Your task to perform on an android device: Go to eBay Image 0: 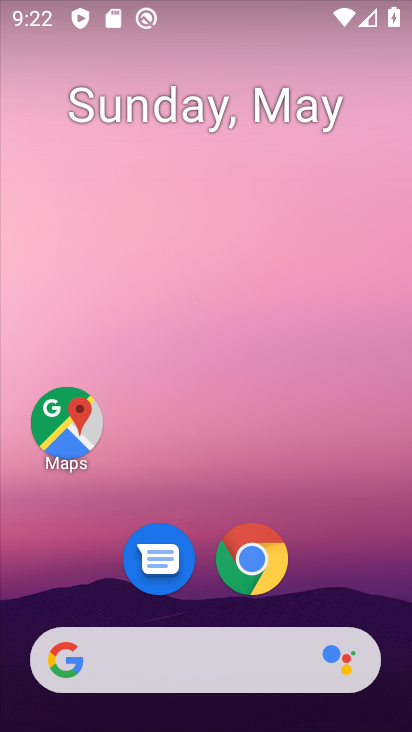
Step 0: press home button
Your task to perform on an android device: Go to eBay Image 1: 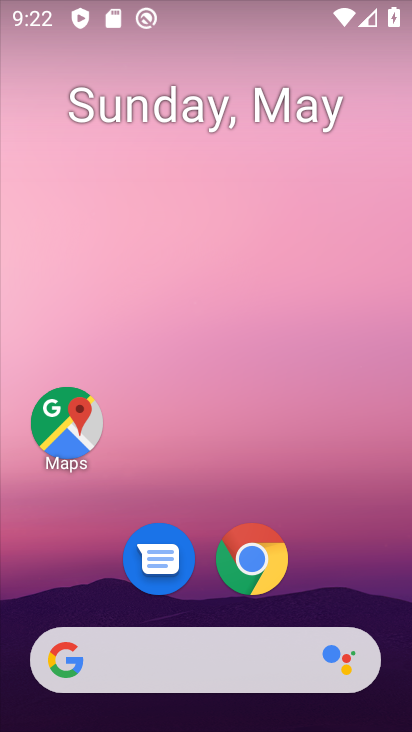
Step 1: click (62, 670)
Your task to perform on an android device: Go to eBay Image 2: 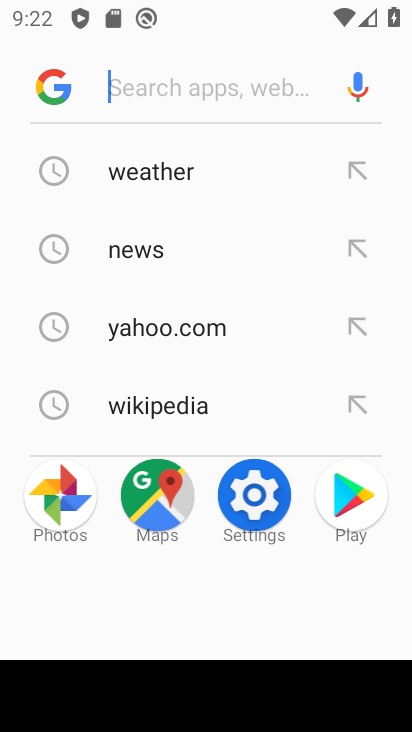
Step 2: type "eBay"
Your task to perform on an android device: Go to eBay Image 3: 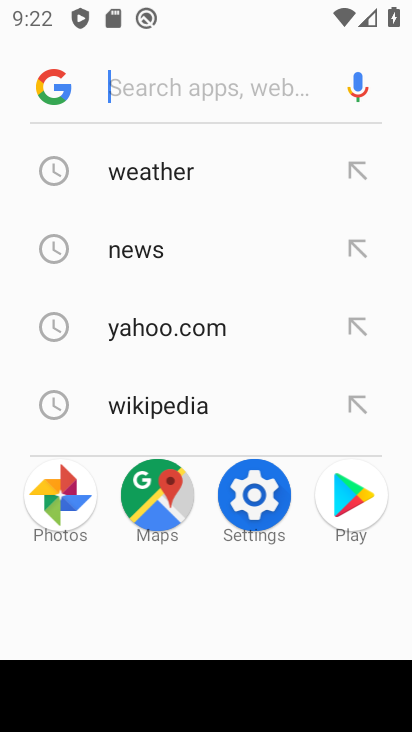
Step 3: click (202, 85)
Your task to perform on an android device: Go to eBay Image 4: 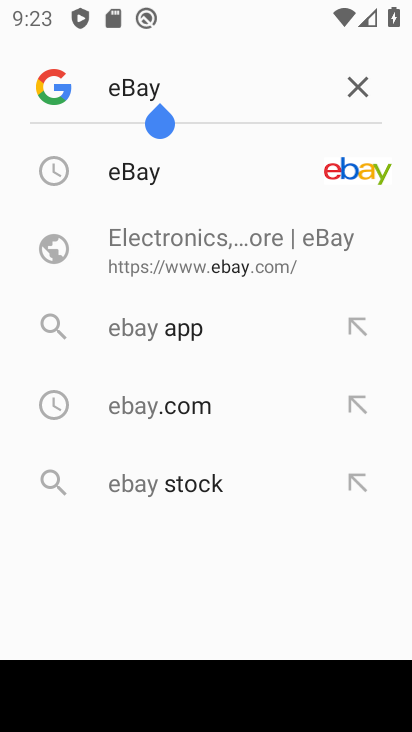
Step 4: click (131, 179)
Your task to perform on an android device: Go to eBay Image 5: 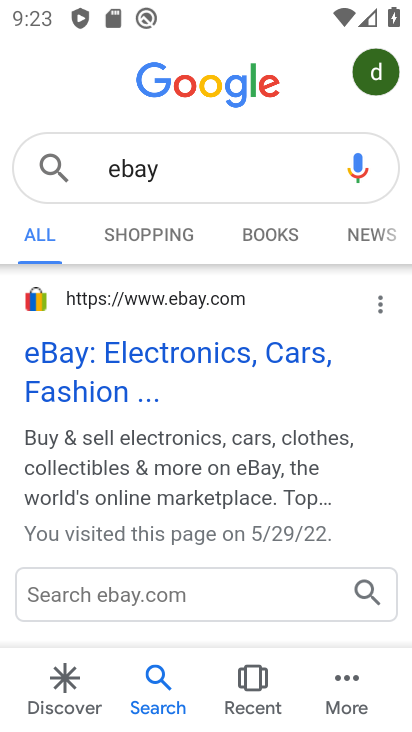
Step 5: click (179, 363)
Your task to perform on an android device: Go to eBay Image 6: 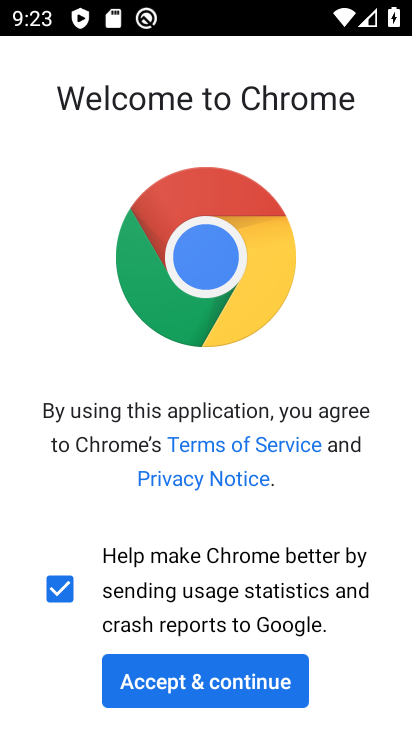
Step 6: click (205, 683)
Your task to perform on an android device: Go to eBay Image 7: 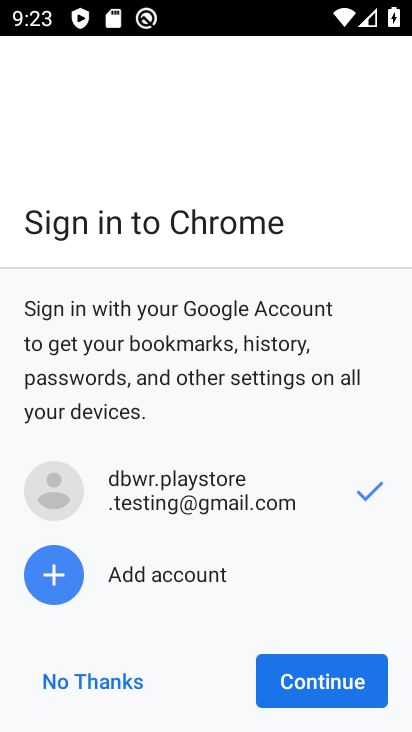
Step 7: click (304, 674)
Your task to perform on an android device: Go to eBay Image 8: 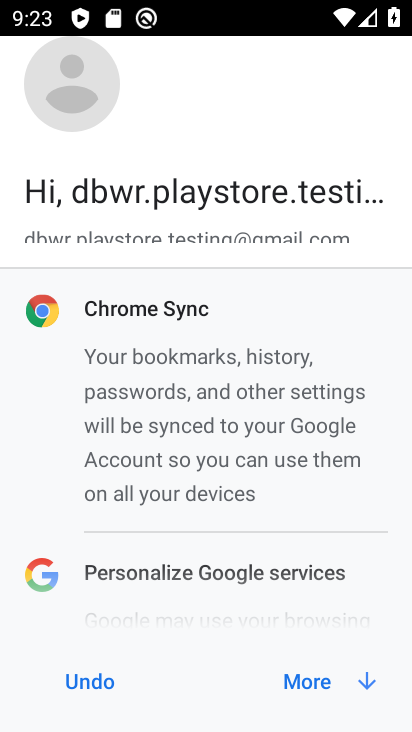
Step 8: click (335, 687)
Your task to perform on an android device: Go to eBay Image 9: 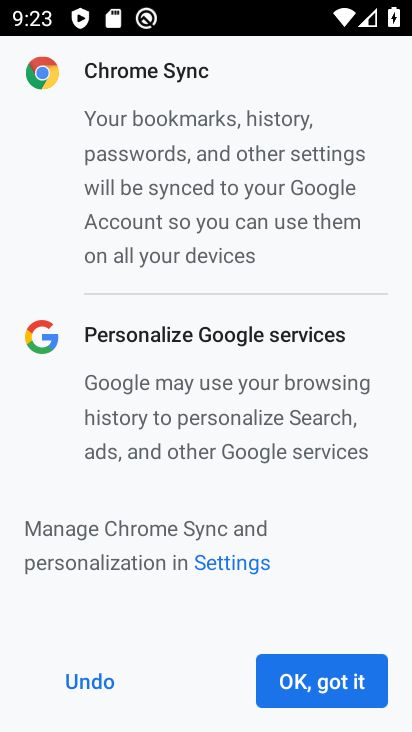
Step 9: click (335, 686)
Your task to perform on an android device: Go to eBay Image 10: 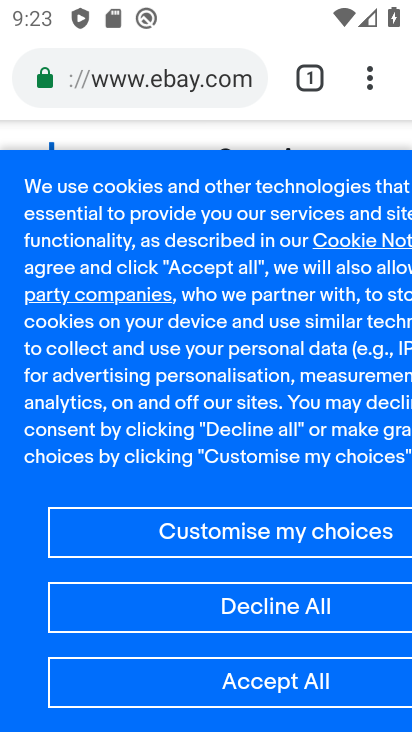
Step 10: task complete